Your task to perform on an android device: toggle airplane mode Image 0: 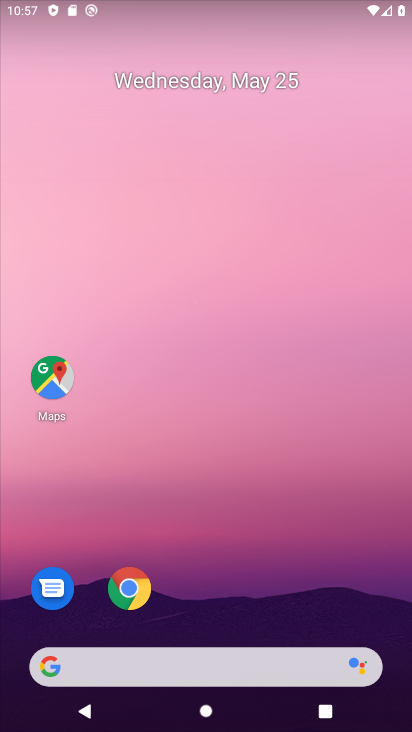
Step 0: drag from (261, 9) to (220, 667)
Your task to perform on an android device: toggle airplane mode Image 1: 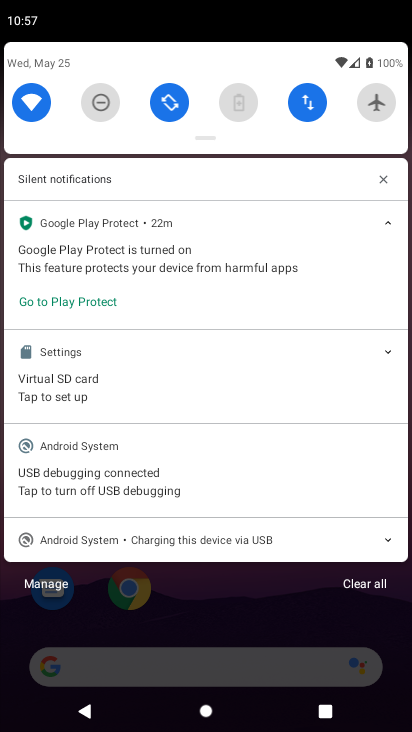
Step 1: click (378, 102)
Your task to perform on an android device: toggle airplane mode Image 2: 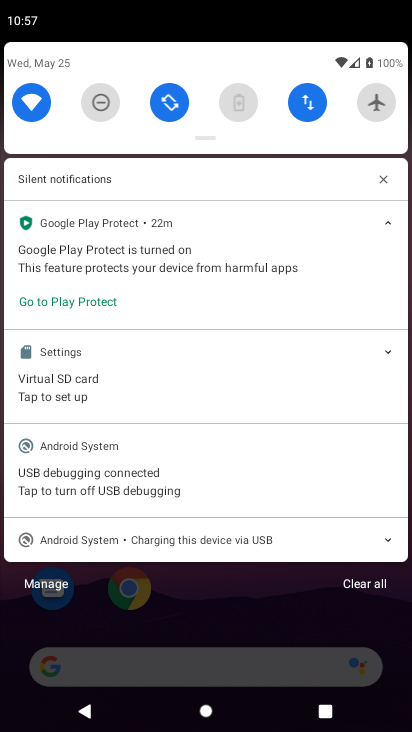
Step 2: click (378, 102)
Your task to perform on an android device: toggle airplane mode Image 3: 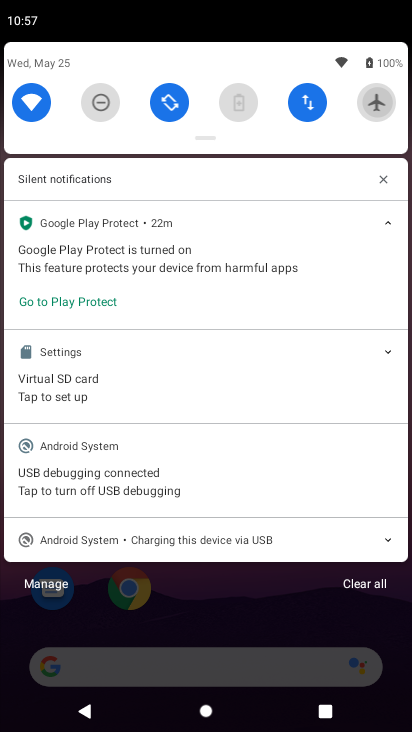
Step 3: click (378, 102)
Your task to perform on an android device: toggle airplane mode Image 4: 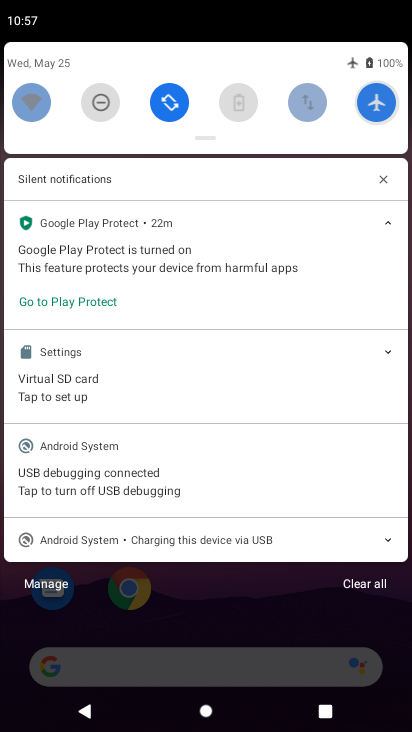
Step 4: click (378, 102)
Your task to perform on an android device: toggle airplane mode Image 5: 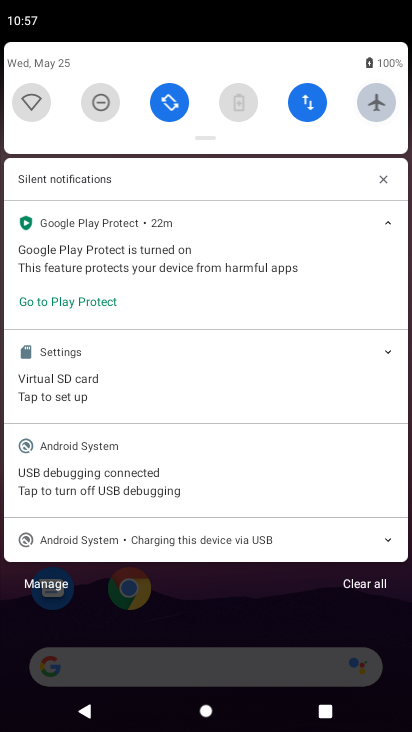
Step 5: click (378, 102)
Your task to perform on an android device: toggle airplane mode Image 6: 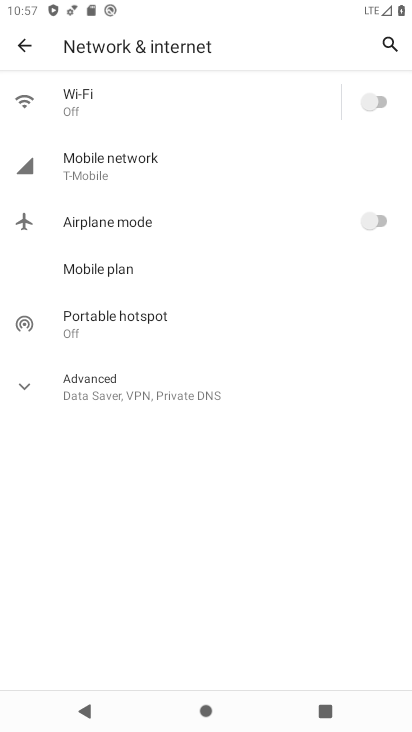
Step 6: task complete